Your task to perform on an android device: Go to wifi settings Image 0: 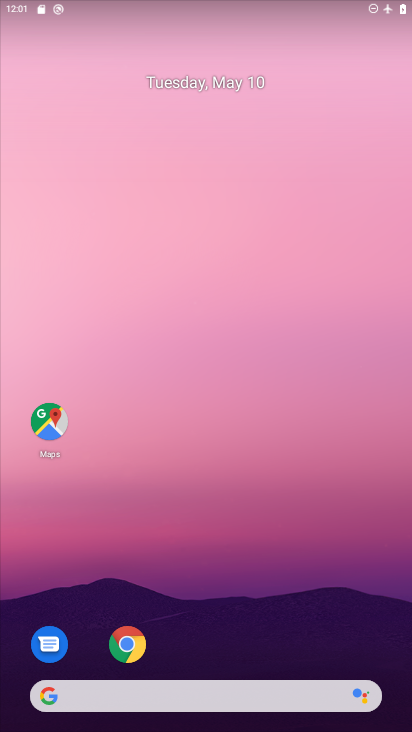
Step 0: drag from (282, 603) to (229, 179)
Your task to perform on an android device: Go to wifi settings Image 1: 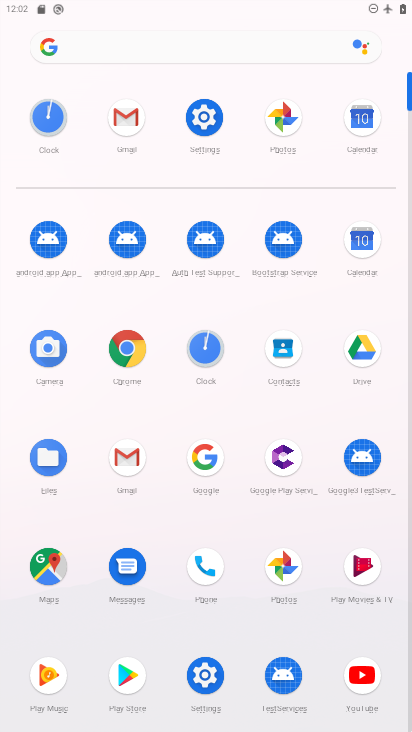
Step 1: click (213, 131)
Your task to perform on an android device: Go to wifi settings Image 2: 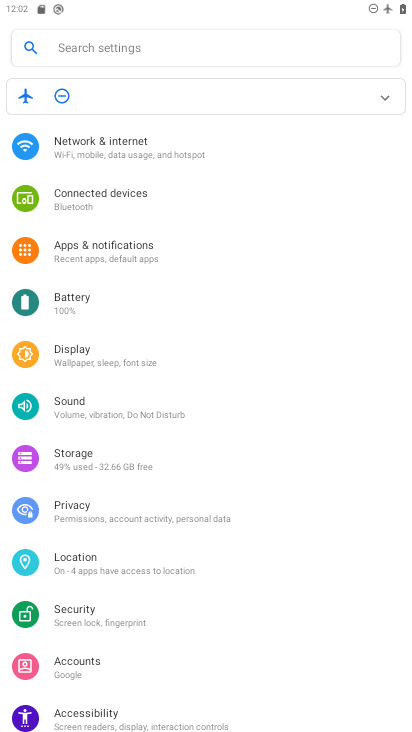
Step 2: click (125, 161)
Your task to perform on an android device: Go to wifi settings Image 3: 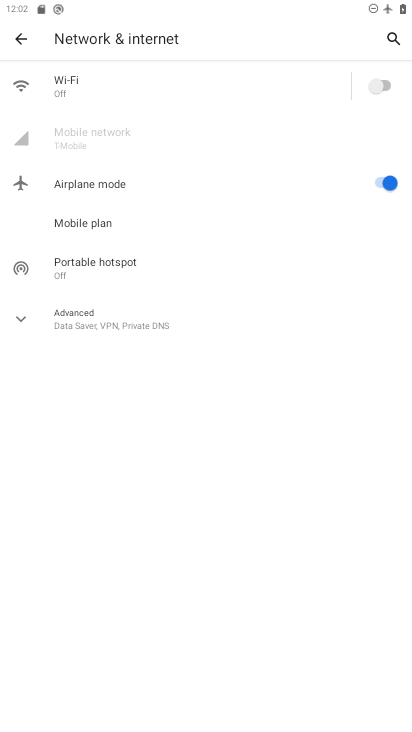
Step 3: click (141, 98)
Your task to perform on an android device: Go to wifi settings Image 4: 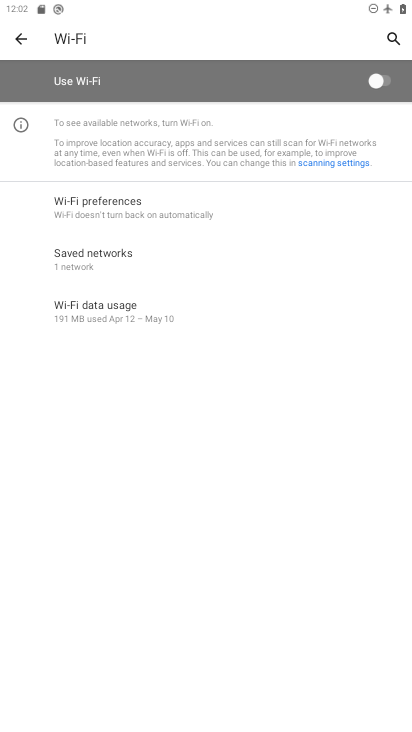
Step 4: task complete